Your task to perform on an android device: Toggle the flashlight Image 0: 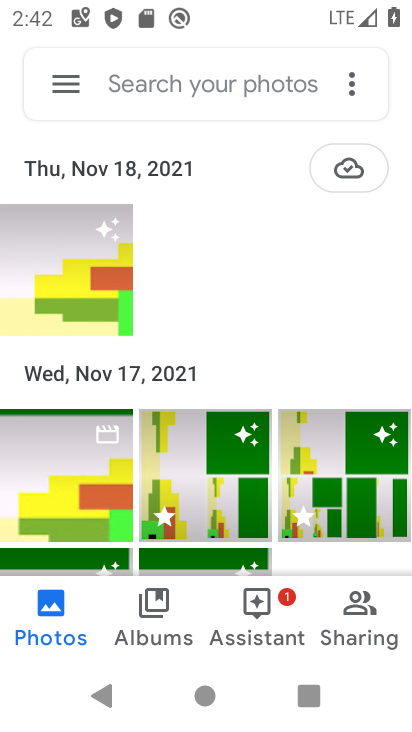
Step 0: press home button
Your task to perform on an android device: Toggle the flashlight Image 1: 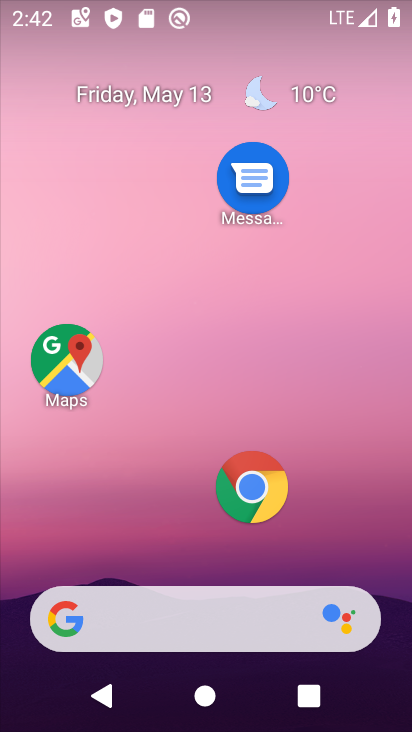
Step 1: drag from (153, 542) to (158, 114)
Your task to perform on an android device: Toggle the flashlight Image 2: 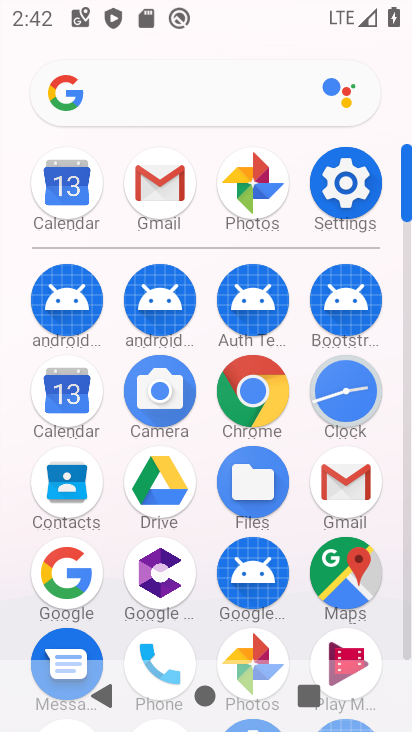
Step 2: click (338, 184)
Your task to perform on an android device: Toggle the flashlight Image 3: 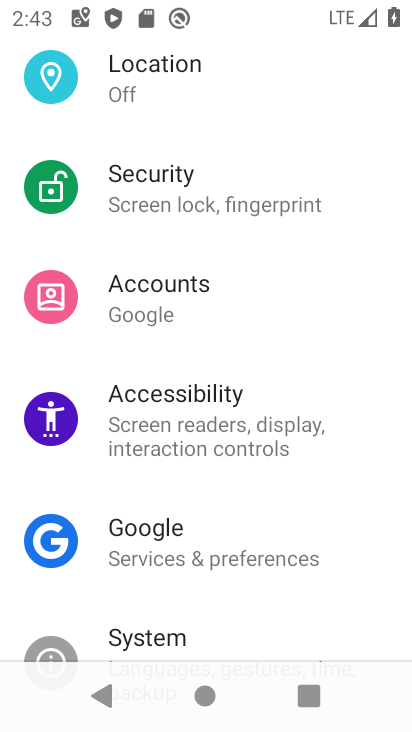
Step 3: drag from (208, 167) to (252, 556)
Your task to perform on an android device: Toggle the flashlight Image 4: 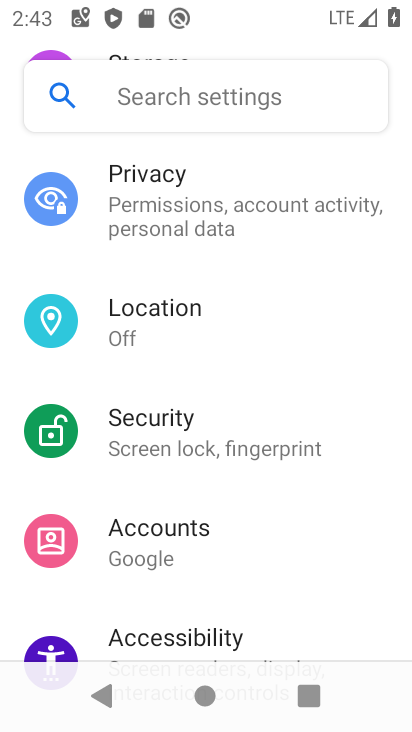
Step 4: drag from (229, 179) to (245, 533)
Your task to perform on an android device: Toggle the flashlight Image 5: 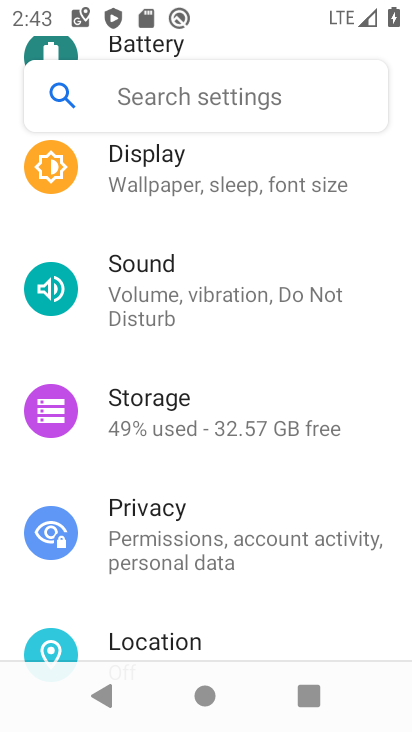
Step 5: click (209, 175)
Your task to perform on an android device: Toggle the flashlight Image 6: 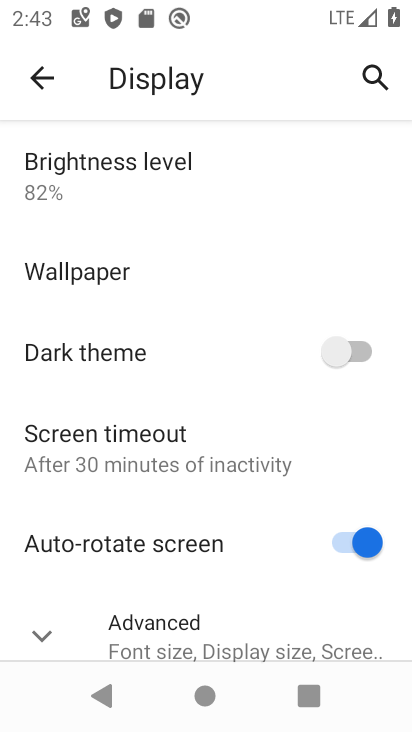
Step 6: task complete